Your task to perform on an android device: set default search engine in the chrome app Image 0: 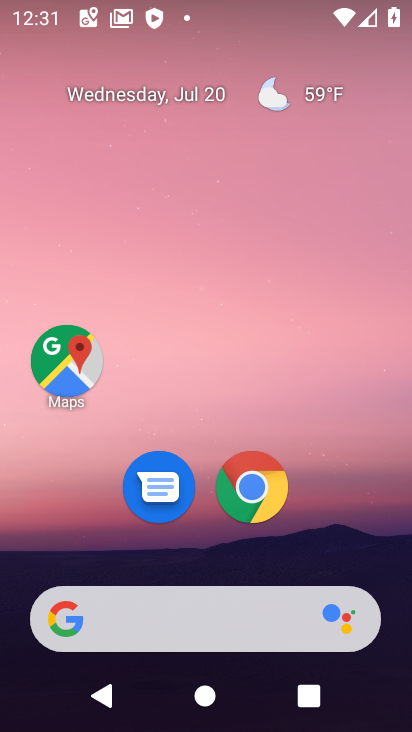
Step 0: click (254, 508)
Your task to perform on an android device: set default search engine in the chrome app Image 1: 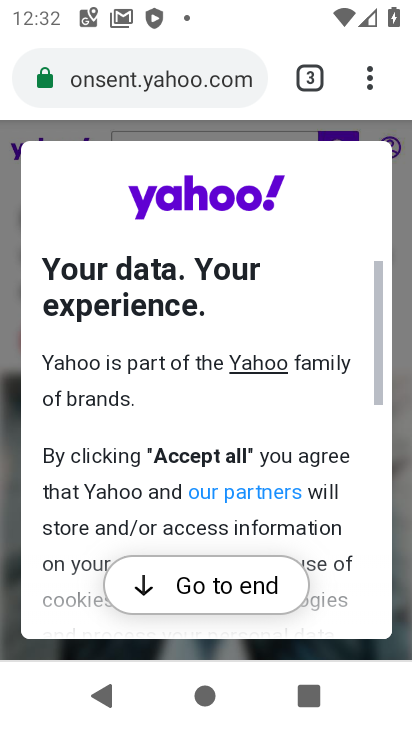
Step 1: drag from (379, 89) to (146, 542)
Your task to perform on an android device: set default search engine in the chrome app Image 2: 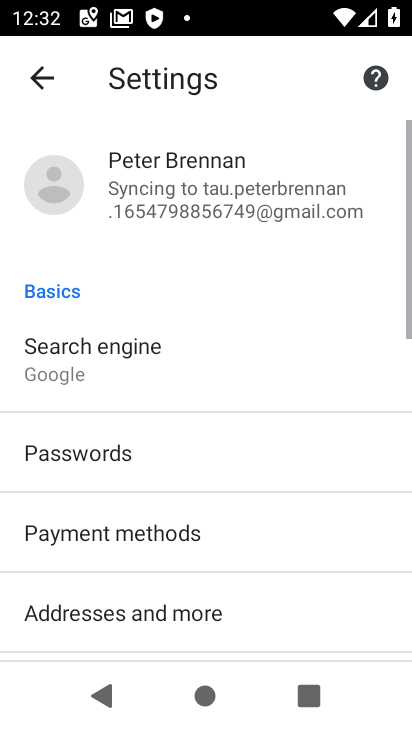
Step 2: click (74, 346)
Your task to perform on an android device: set default search engine in the chrome app Image 3: 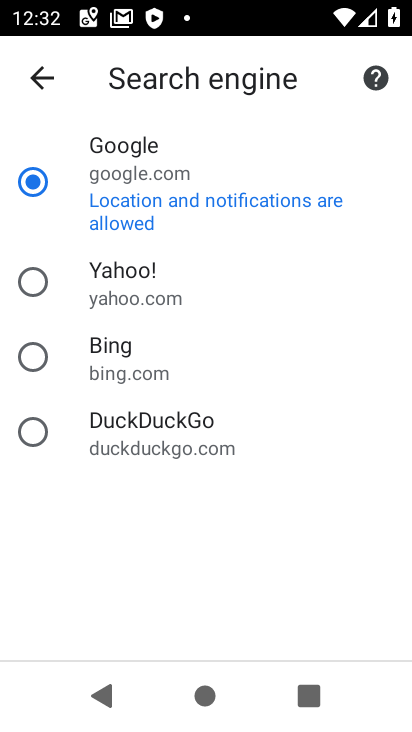
Step 3: click (29, 272)
Your task to perform on an android device: set default search engine in the chrome app Image 4: 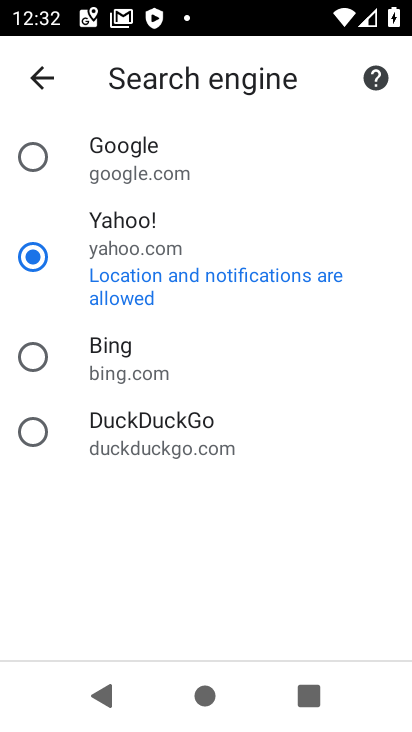
Step 4: task complete